Your task to perform on an android device: Go to display settings Image 0: 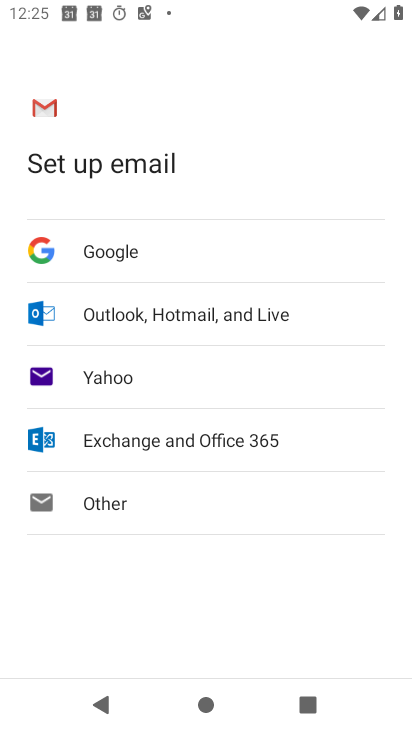
Step 0: press home button
Your task to perform on an android device: Go to display settings Image 1: 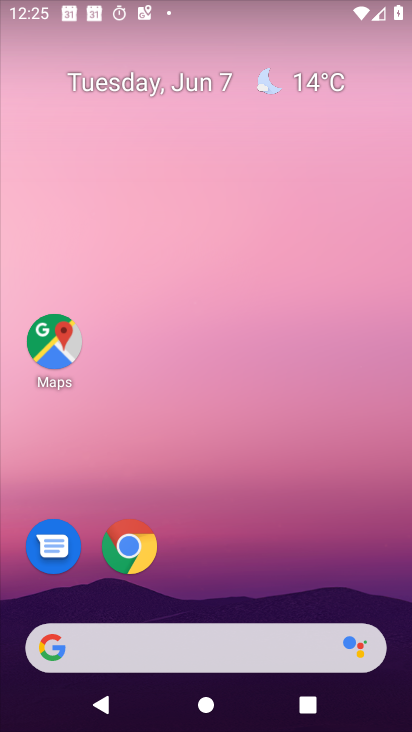
Step 1: drag from (277, 592) to (411, 86)
Your task to perform on an android device: Go to display settings Image 2: 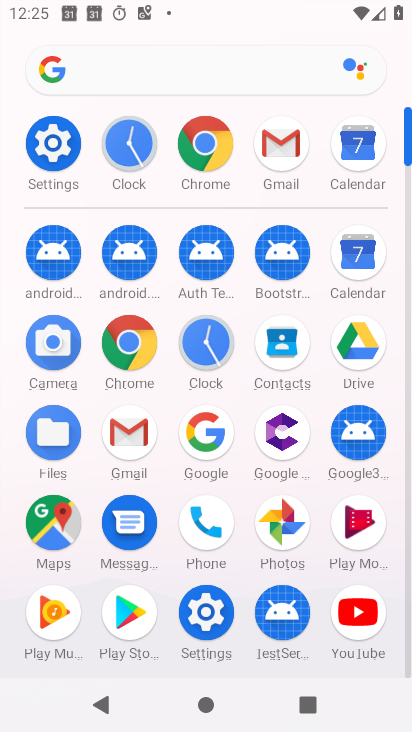
Step 2: click (49, 149)
Your task to perform on an android device: Go to display settings Image 3: 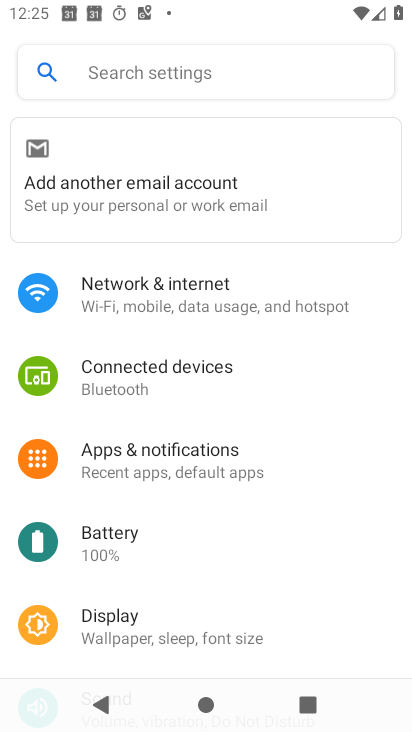
Step 3: click (143, 625)
Your task to perform on an android device: Go to display settings Image 4: 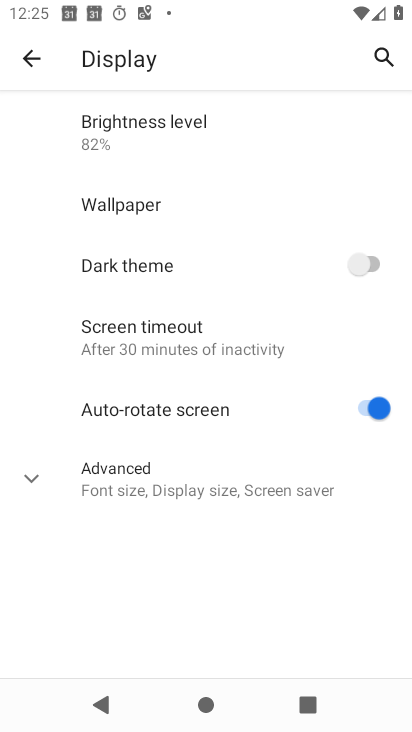
Step 4: task complete